Your task to perform on an android device: Search for pizza restaurants on Maps Image 0: 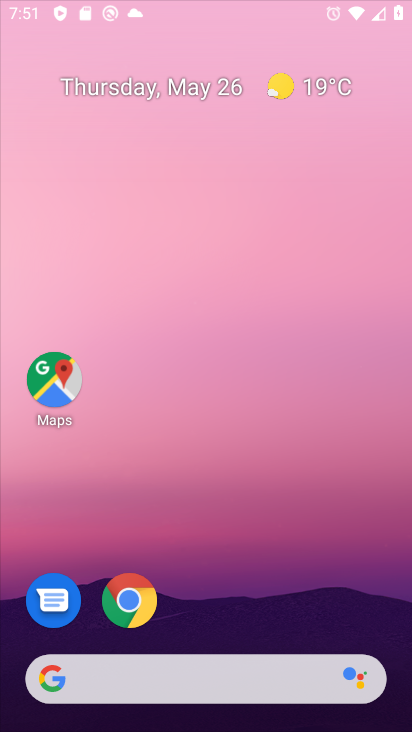
Step 0: press home button
Your task to perform on an android device: Search for pizza restaurants on Maps Image 1: 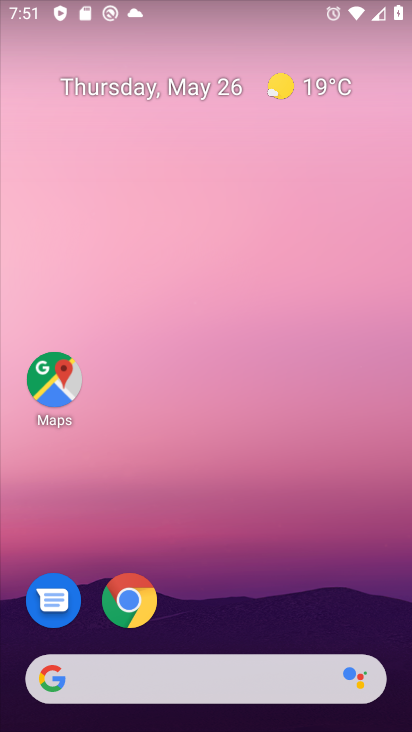
Step 1: click (60, 387)
Your task to perform on an android device: Search for pizza restaurants on Maps Image 2: 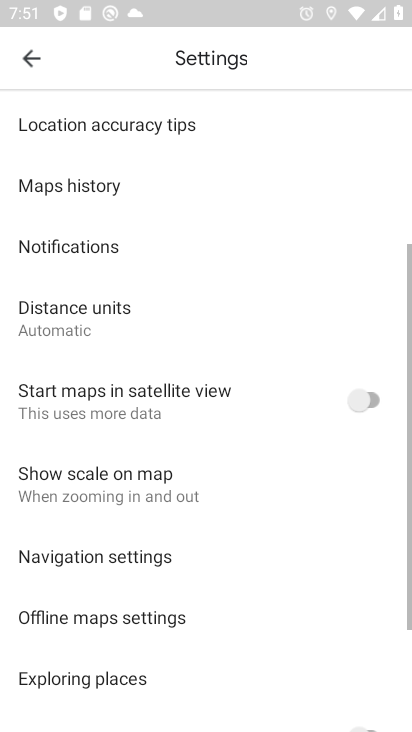
Step 2: click (26, 59)
Your task to perform on an android device: Search for pizza restaurants on Maps Image 3: 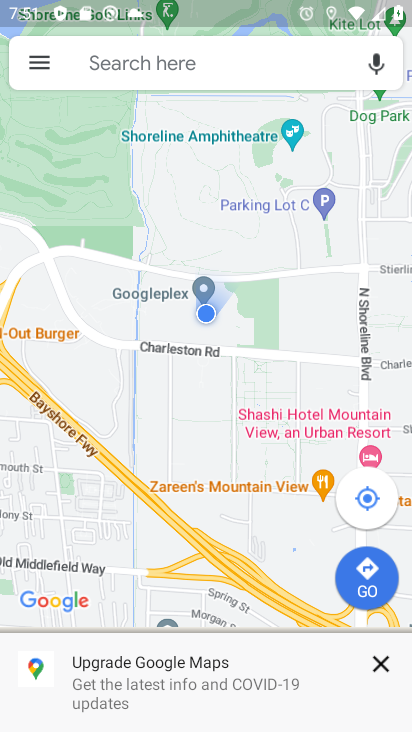
Step 3: click (159, 66)
Your task to perform on an android device: Search for pizza restaurants on Maps Image 4: 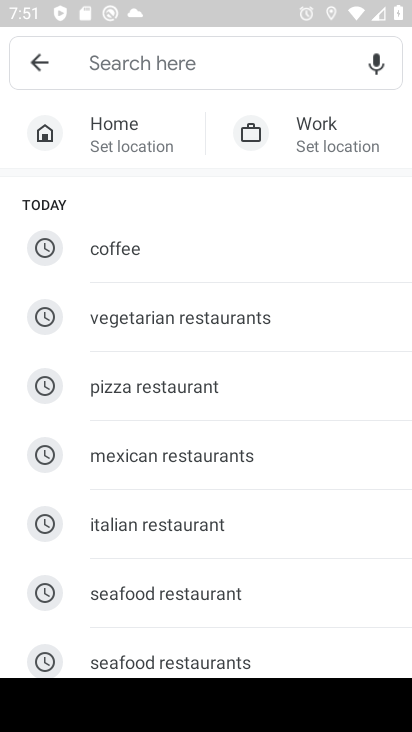
Step 4: click (166, 389)
Your task to perform on an android device: Search for pizza restaurants on Maps Image 5: 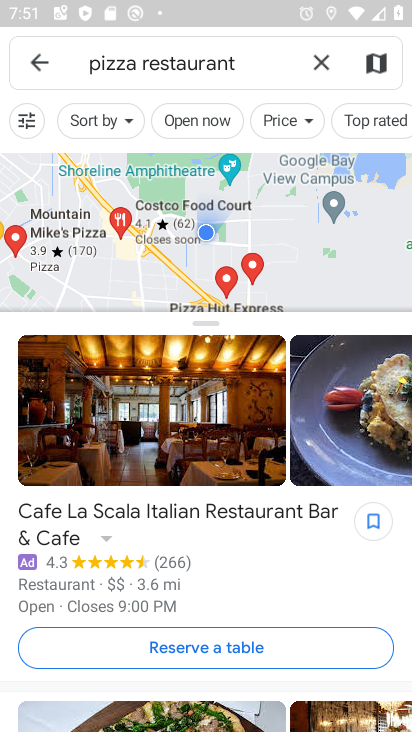
Step 5: task complete